Your task to perform on an android device: toggle translation in the chrome app Image 0: 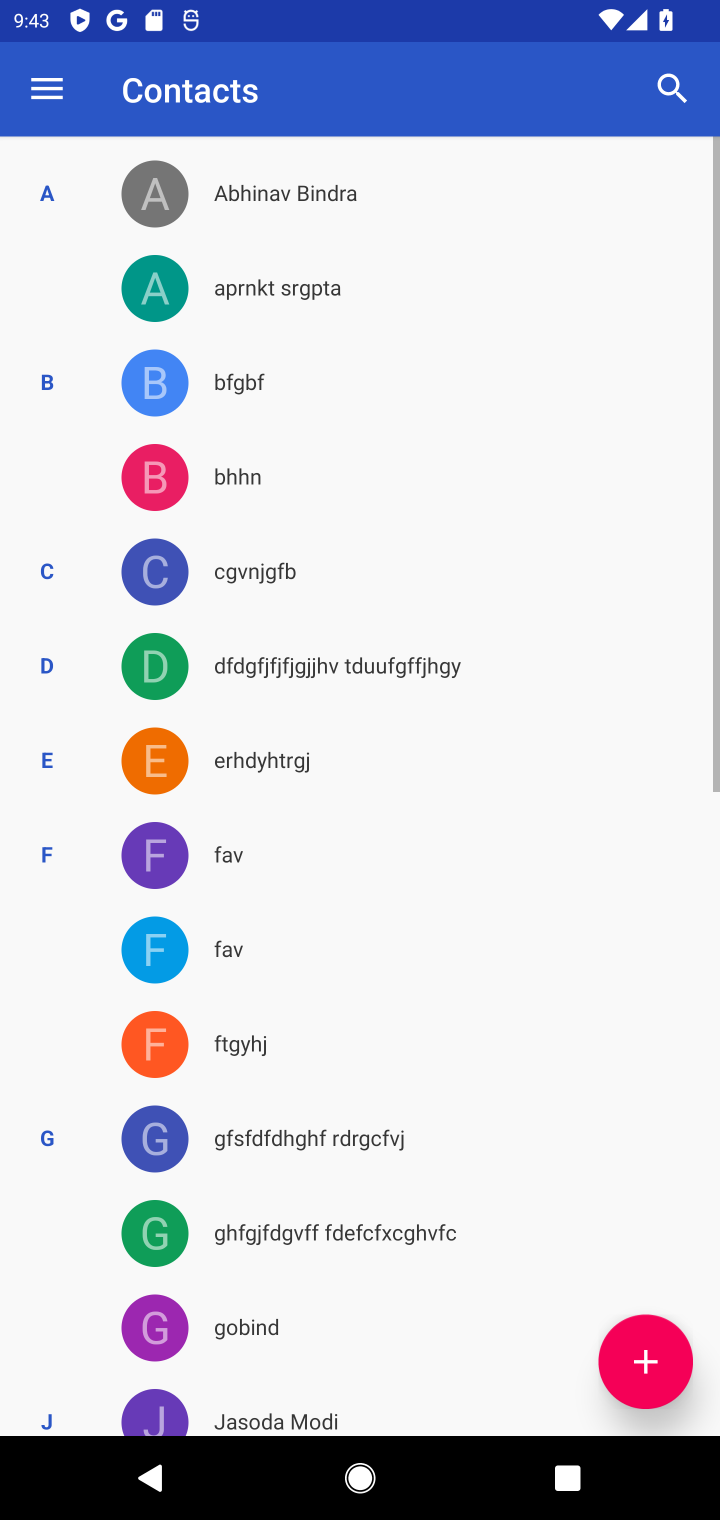
Step 0: press back button
Your task to perform on an android device: toggle translation in the chrome app Image 1: 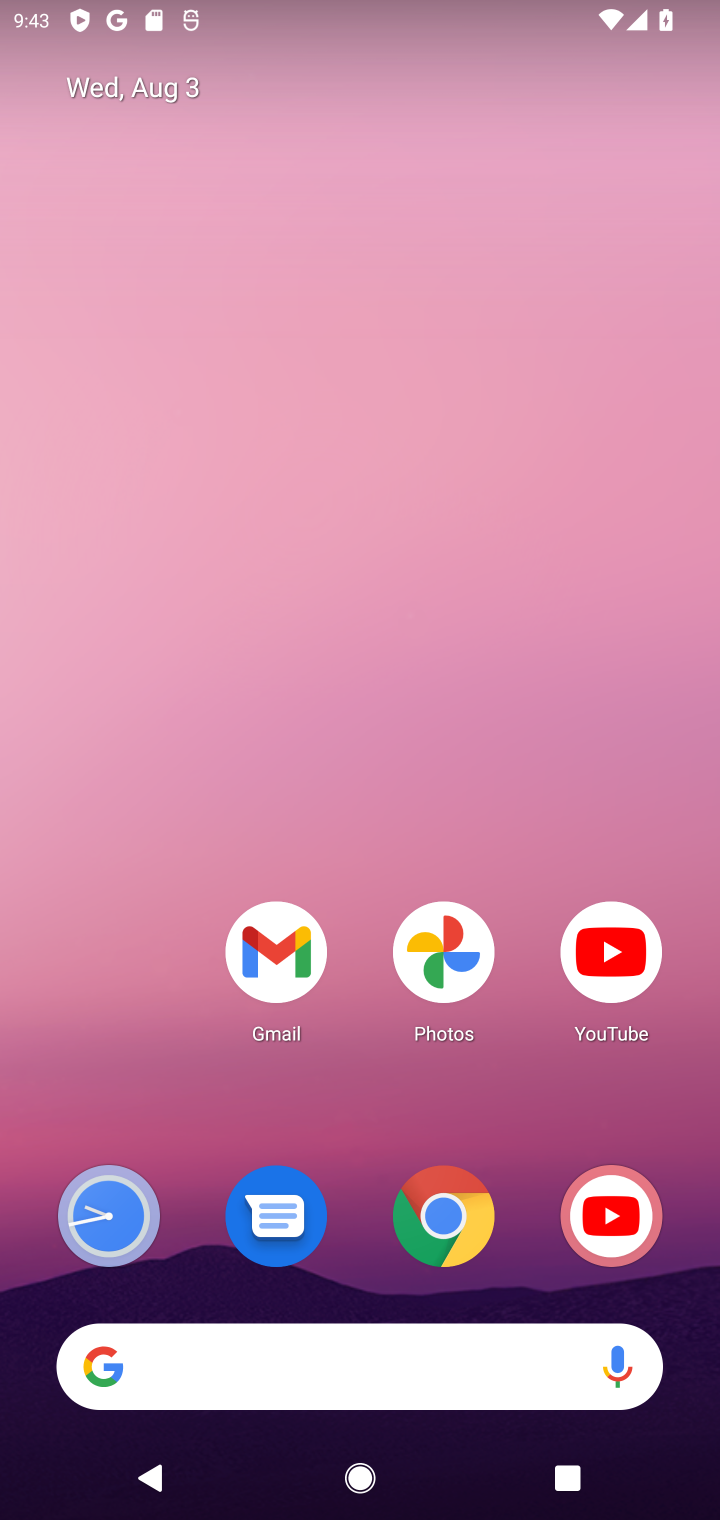
Step 1: click (464, 1204)
Your task to perform on an android device: toggle translation in the chrome app Image 2: 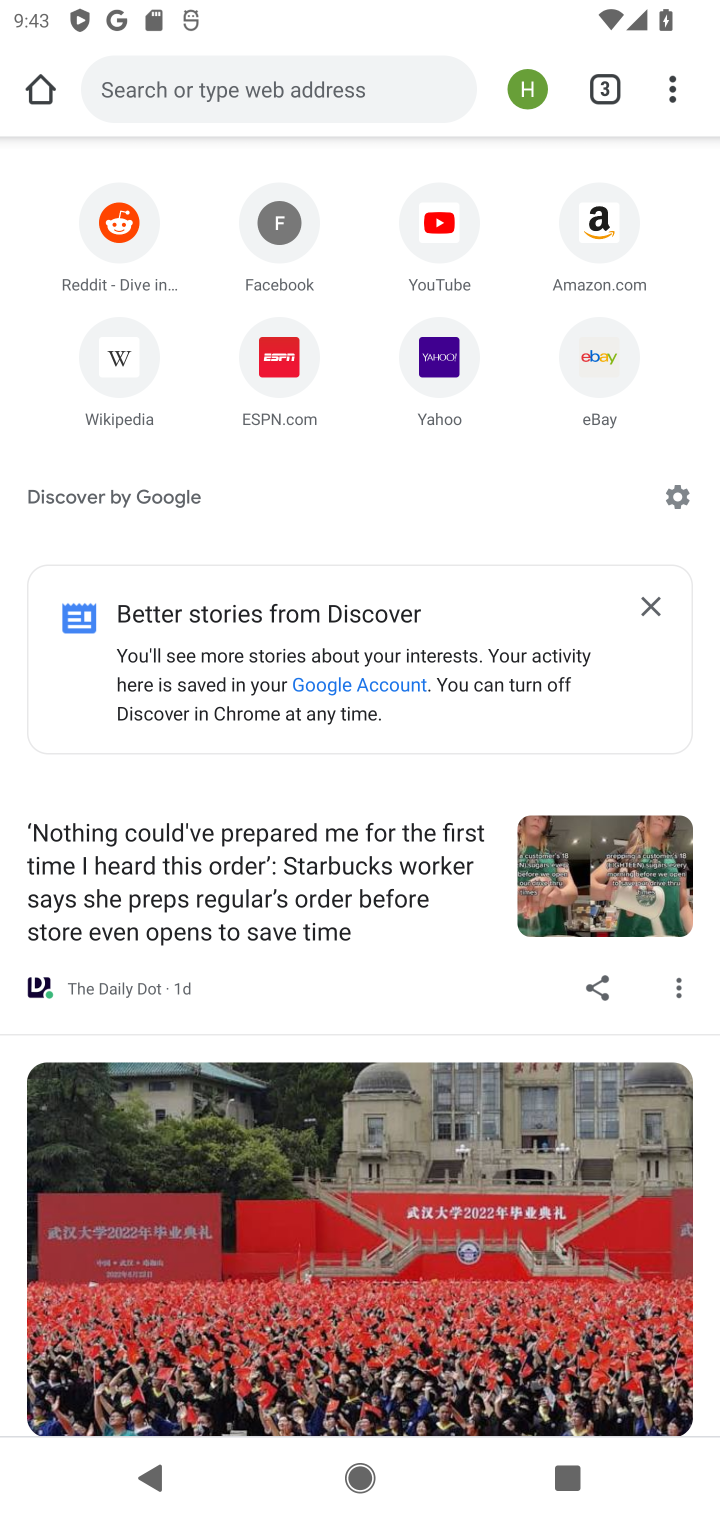
Step 2: drag from (676, 90) to (387, 796)
Your task to perform on an android device: toggle translation in the chrome app Image 3: 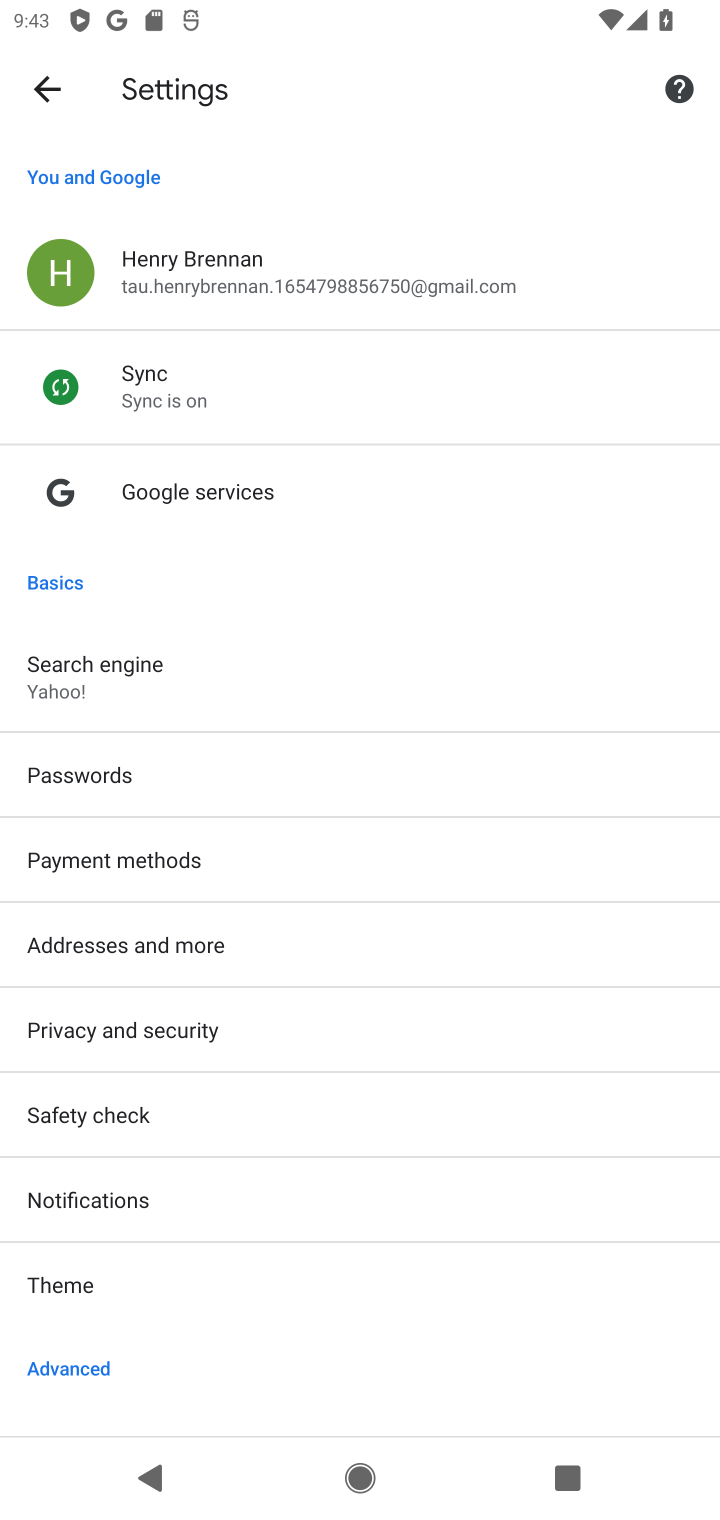
Step 3: drag from (304, 1176) to (444, 132)
Your task to perform on an android device: toggle translation in the chrome app Image 4: 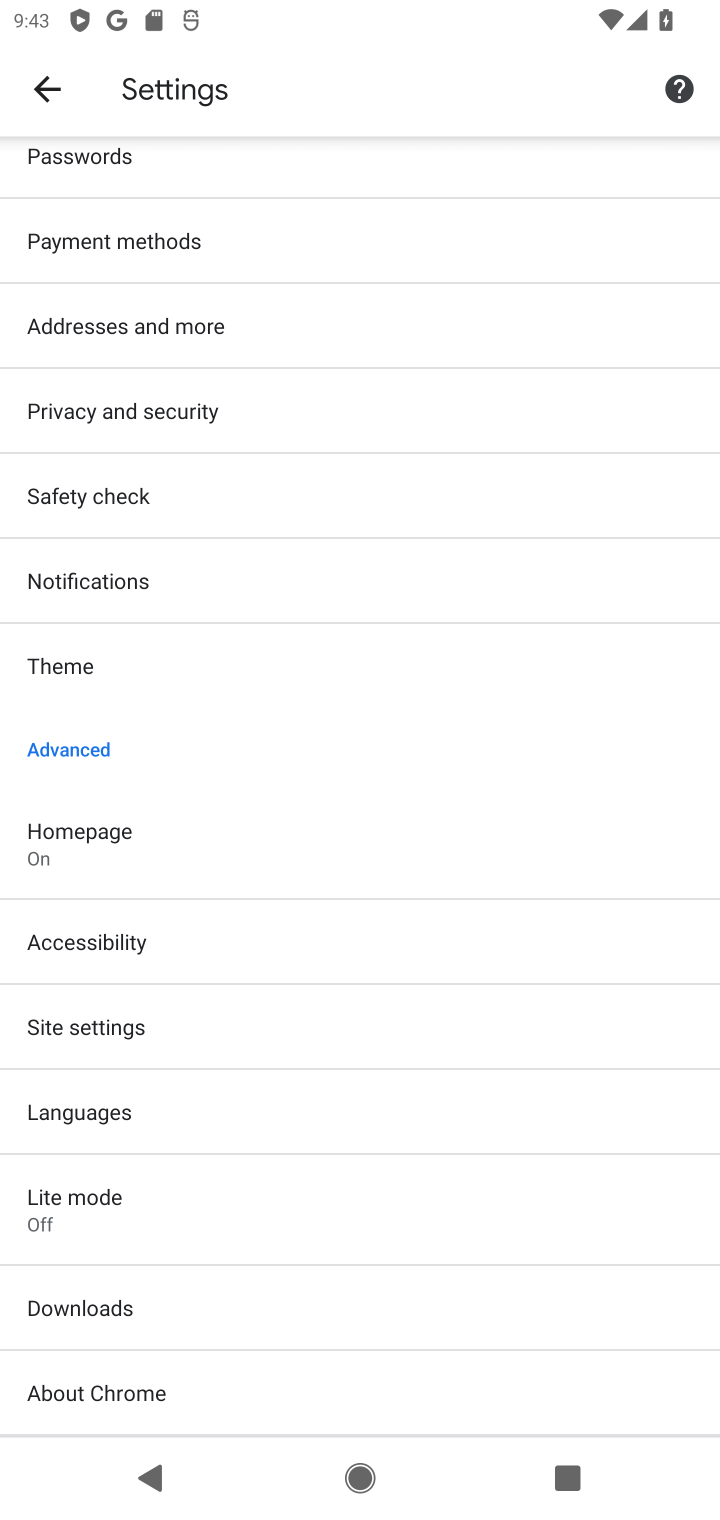
Step 4: click (125, 1097)
Your task to perform on an android device: toggle translation in the chrome app Image 5: 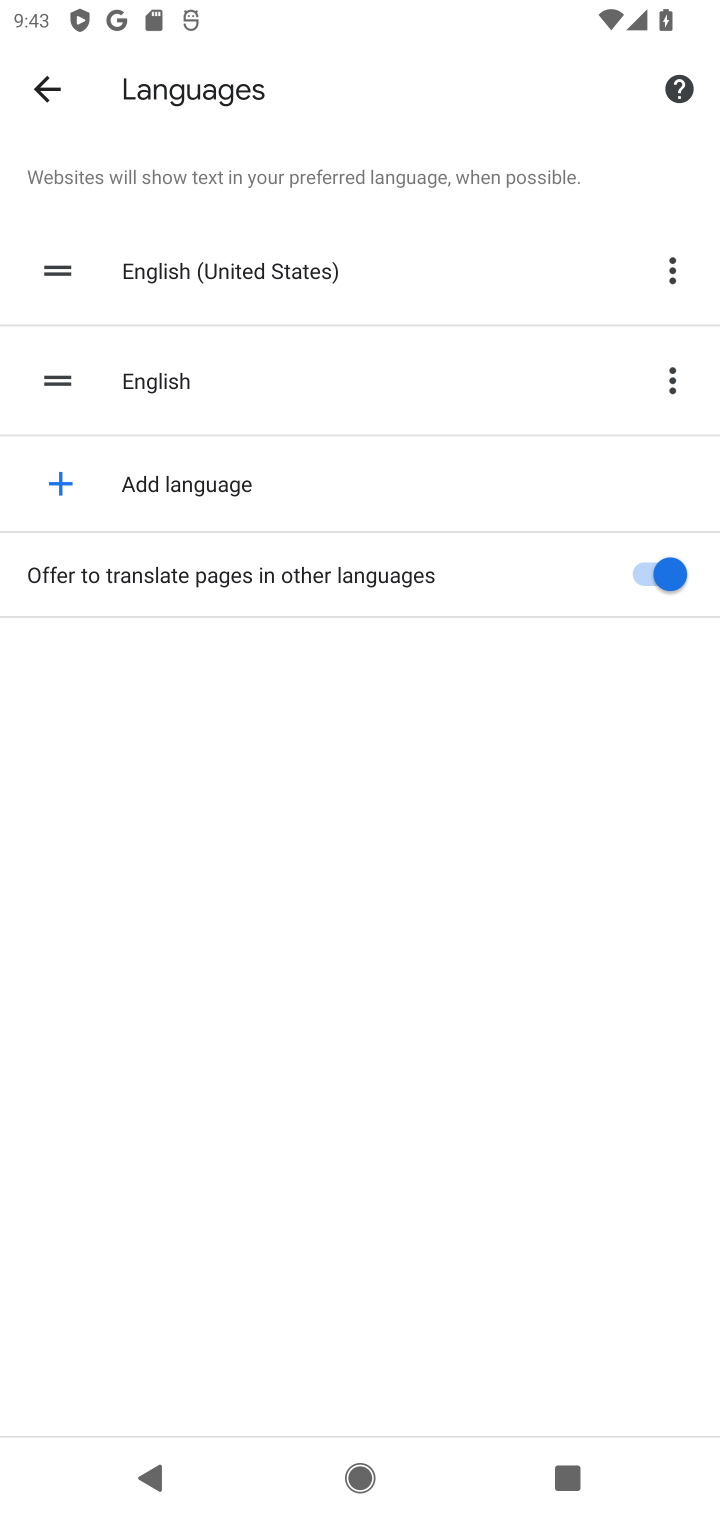
Step 5: click (661, 561)
Your task to perform on an android device: toggle translation in the chrome app Image 6: 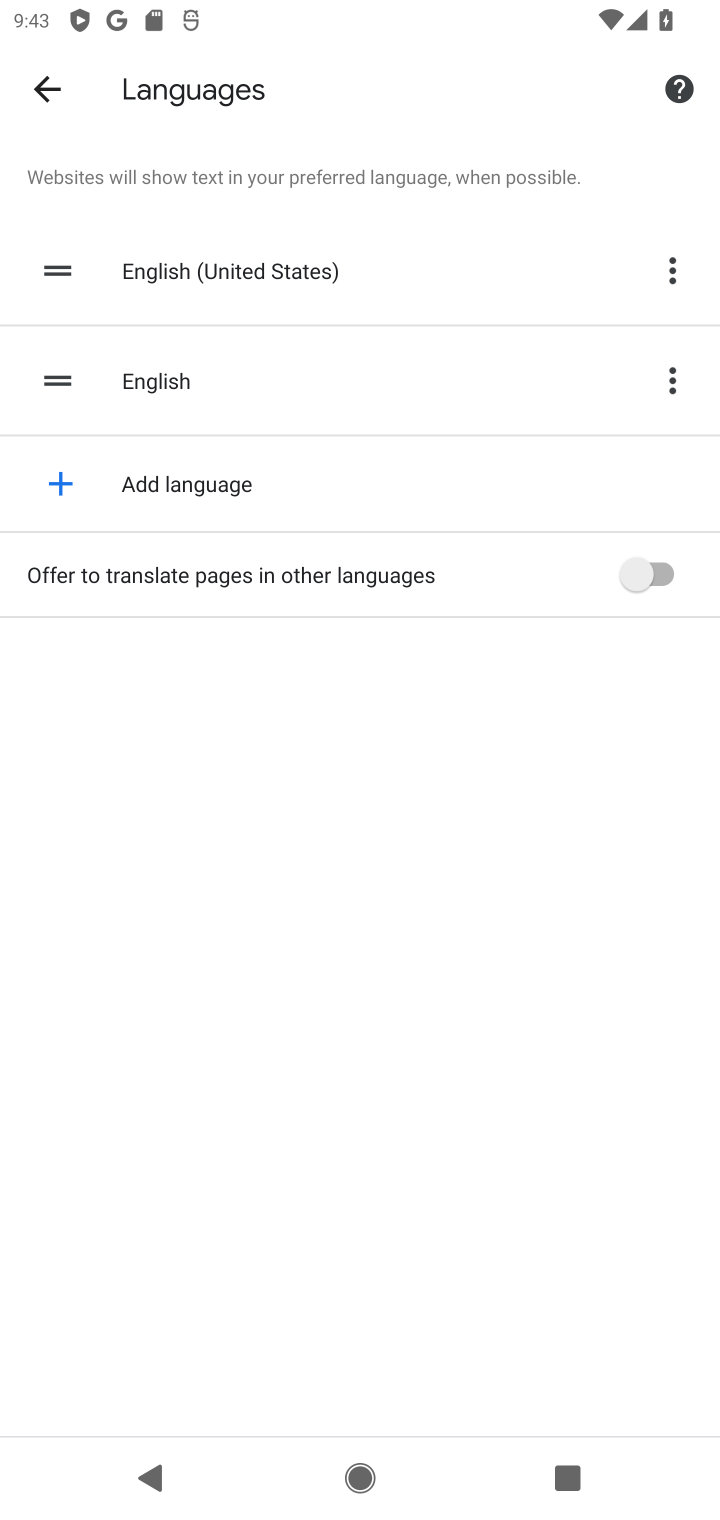
Step 6: task complete